Your task to perform on an android device: change text size in settings app Image 0: 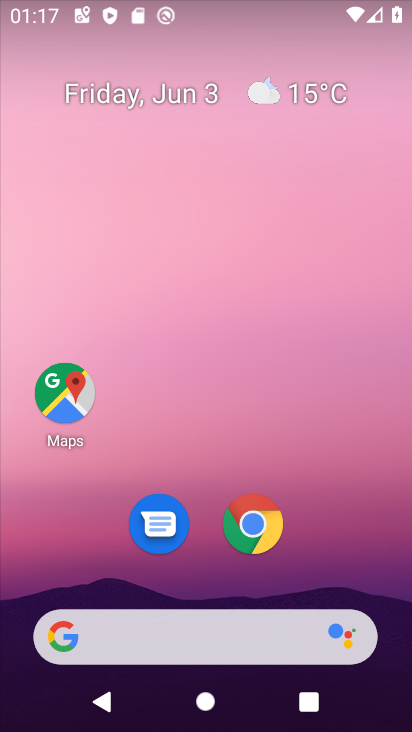
Step 0: drag from (343, 548) to (326, 55)
Your task to perform on an android device: change text size in settings app Image 1: 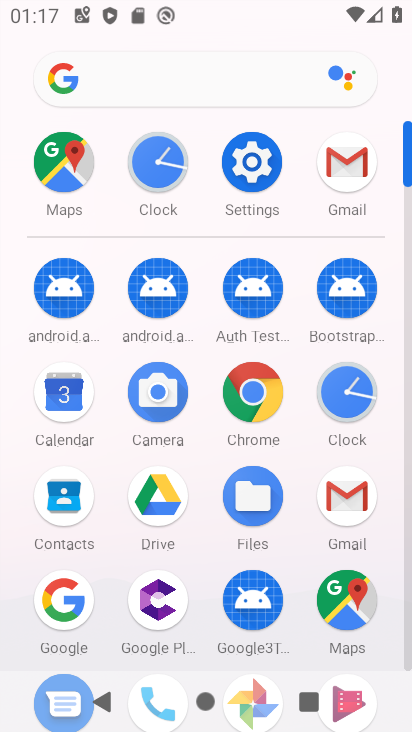
Step 1: click (260, 147)
Your task to perform on an android device: change text size in settings app Image 2: 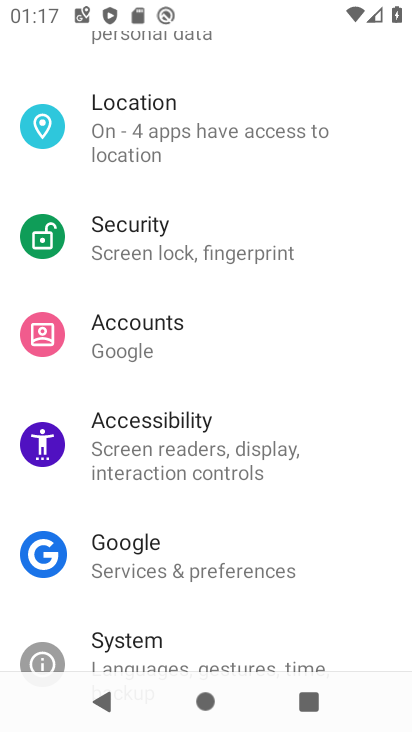
Step 2: drag from (241, 226) to (258, 676)
Your task to perform on an android device: change text size in settings app Image 3: 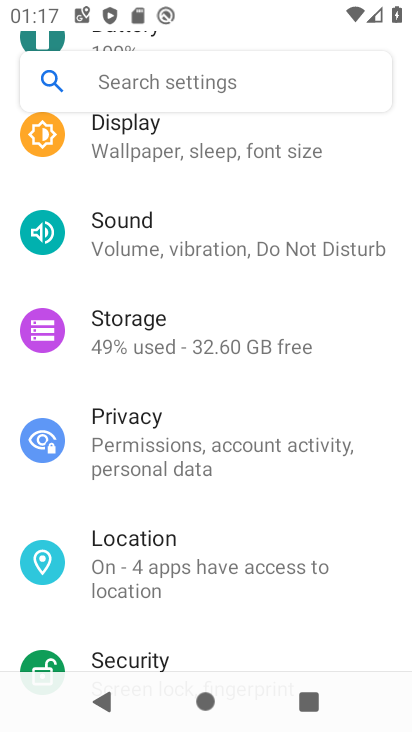
Step 3: click (235, 144)
Your task to perform on an android device: change text size in settings app Image 4: 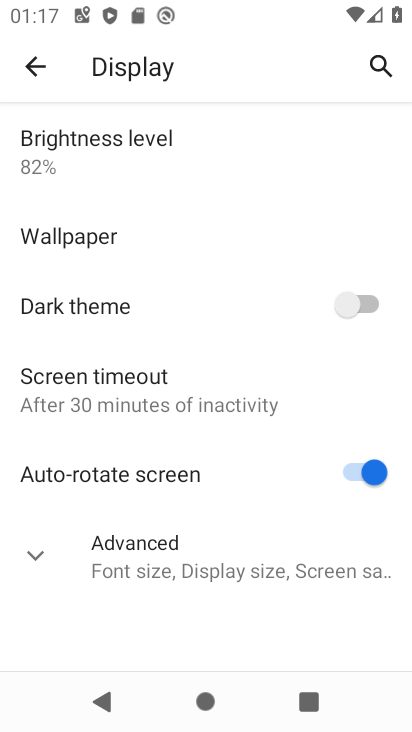
Step 4: click (36, 550)
Your task to perform on an android device: change text size in settings app Image 5: 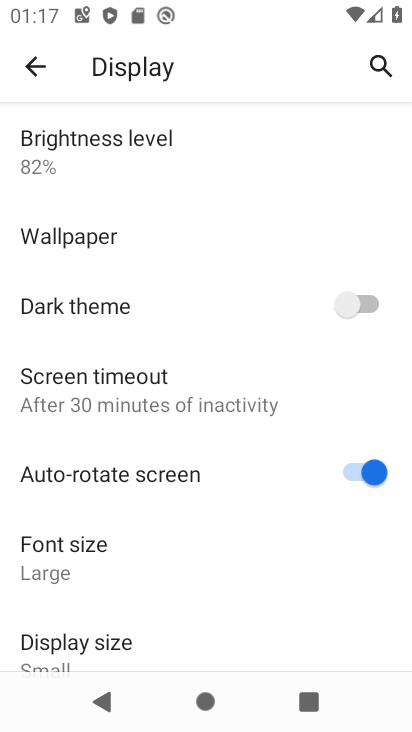
Step 5: click (149, 559)
Your task to perform on an android device: change text size in settings app Image 6: 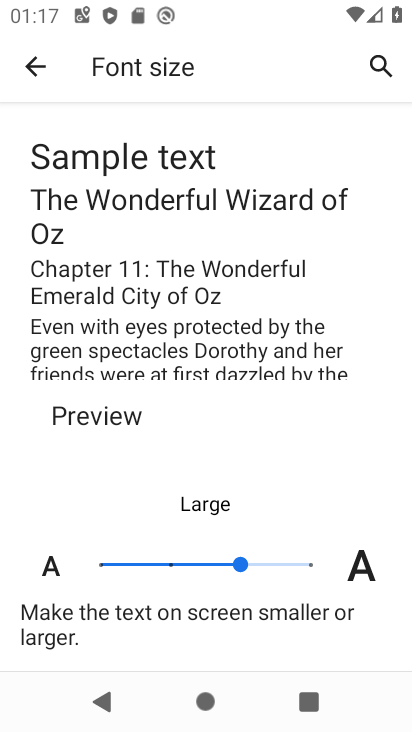
Step 6: click (162, 554)
Your task to perform on an android device: change text size in settings app Image 7: 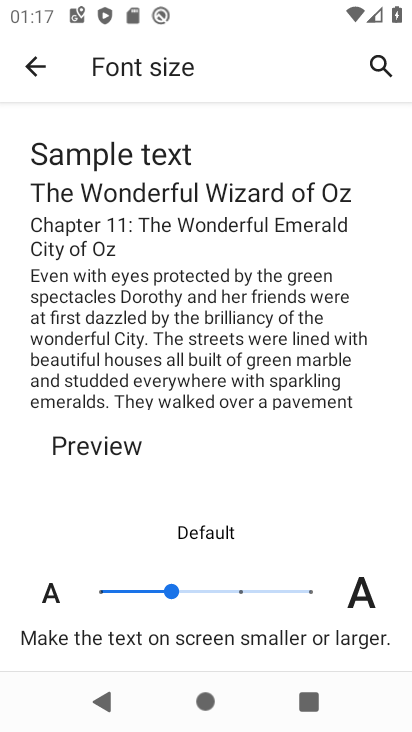
Step 7: click (42, 59)
Your task to perform on an android device: change text size in settings app Image 8: 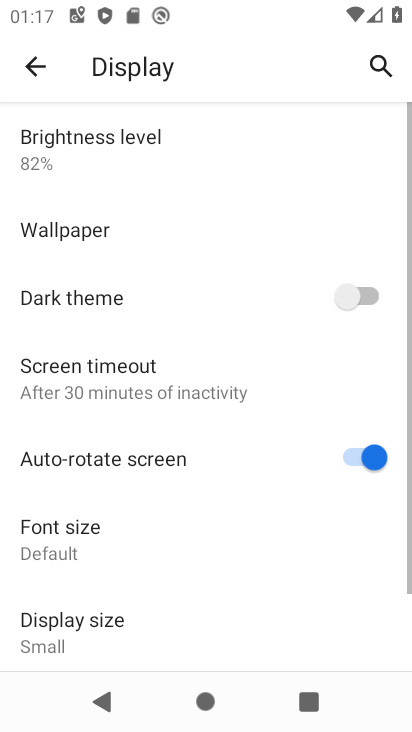
Step 8: task complete